Your task to perform on an android device: Go to battery settings Image 0: 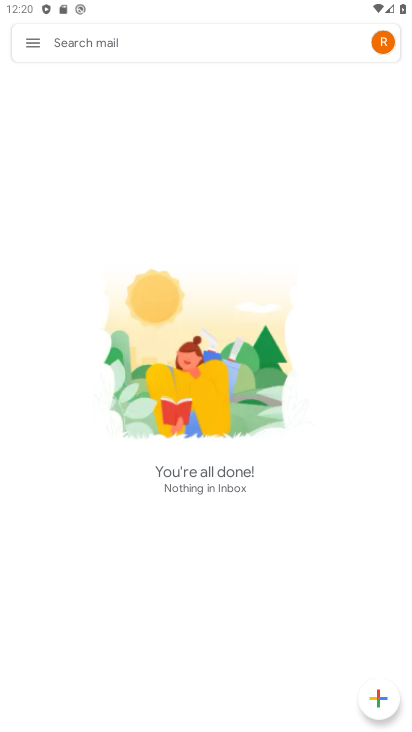
Step 0: press home button
Your task to perform on an android device: Go to battery settings Image 1: 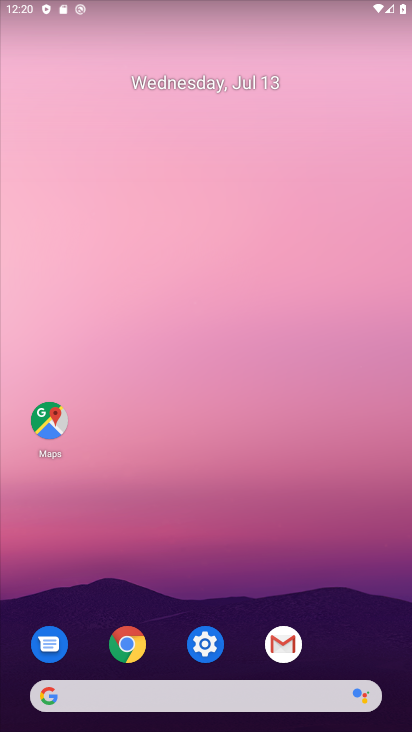
Step 1: click (205, 649)
Your task to perform on an android device: Go to battery settings Image 2: 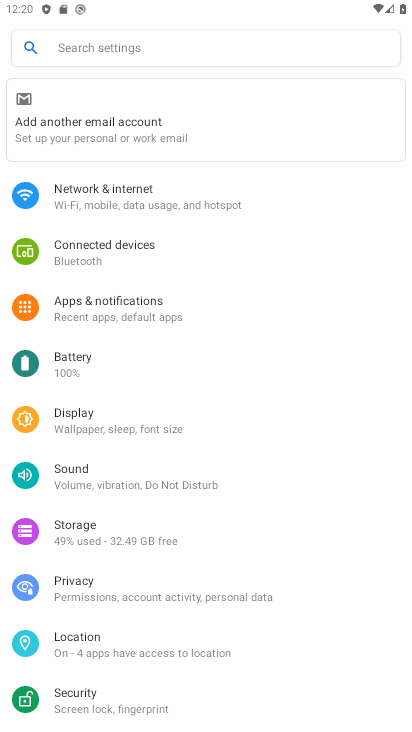
Step 2: click (143, 361)
Your task to perform on an android device: Go to battery settings Image 3: 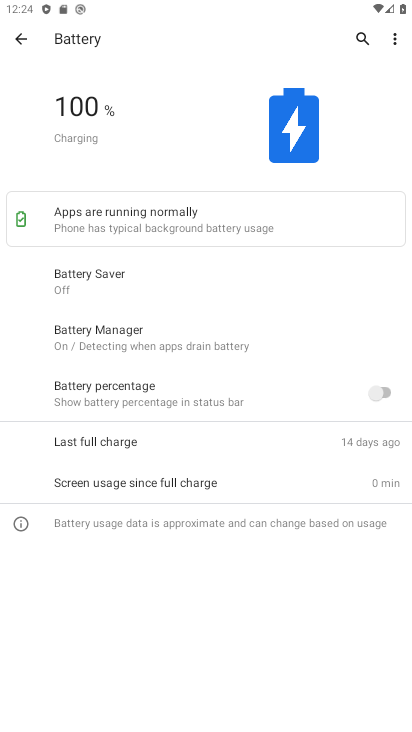
Step 3: task complete